Your task to perform on an android device: find which apps use the phone's location Image 0: 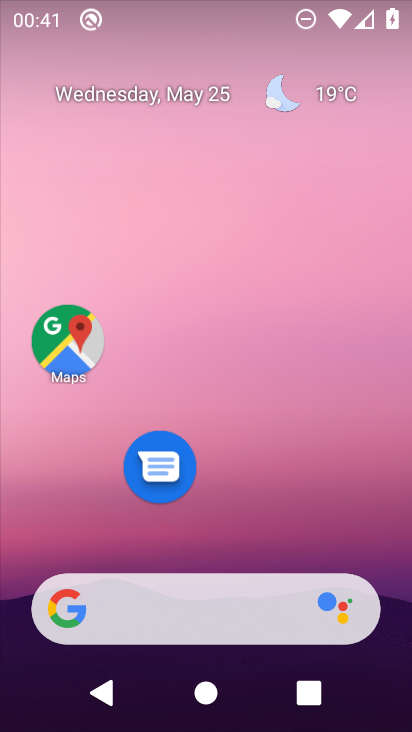
Step 0: drag from (241, 569) to (245, 161)
Your task to perform on an android device: find which apps use the phone's location Image 1: 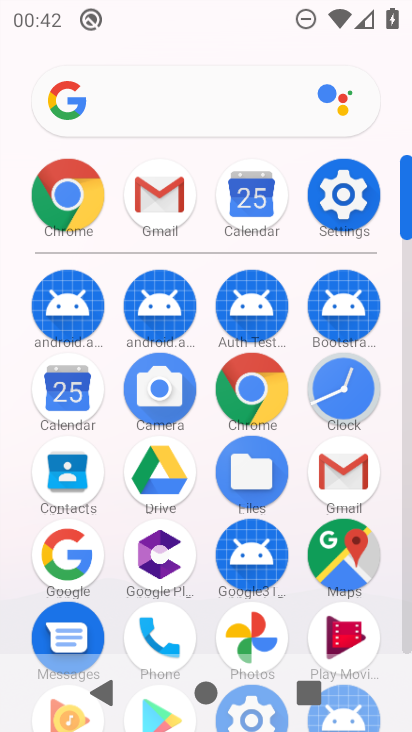
Step 1: click (337, 196)
Your task to perform on an android device: find which apps use the phone's location Image 2: 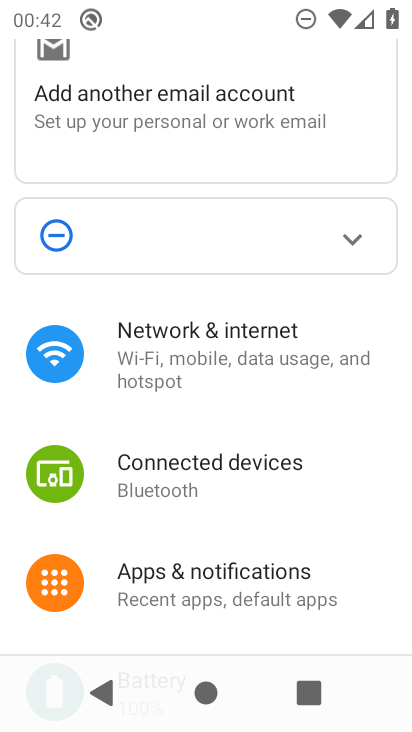
Step 2: drag from (236, 508) to (353, 204)
Your task to perform on an android device: find which apps use the phone's location Image 3: 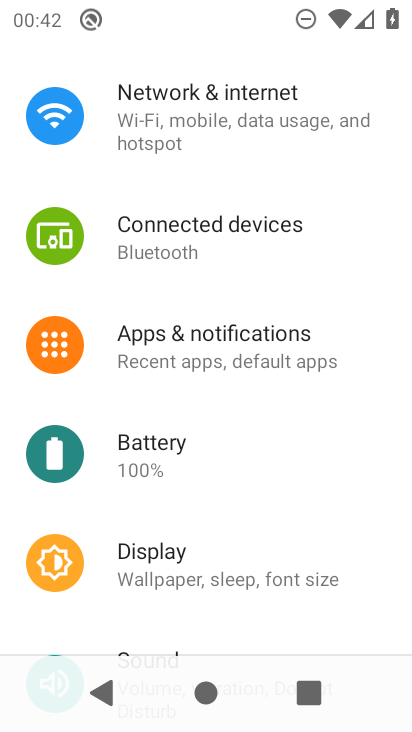
Step 3: drag from (184, 562) to (291, 84)
Your task to perform on an android device: find which apps use the phone's location Image 4: 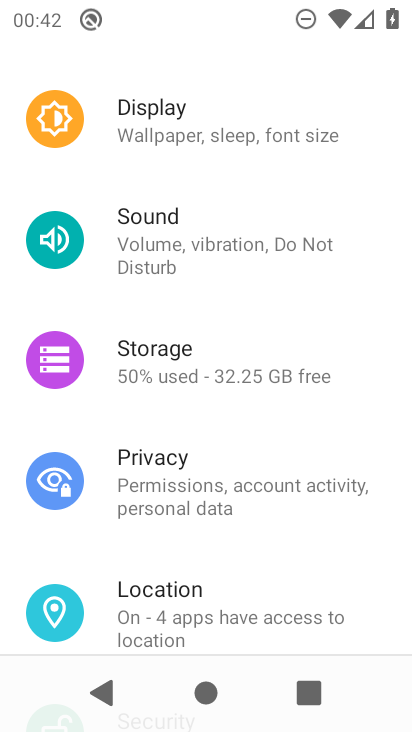
Step 4: click (202, 579)
Your task to perform on an android device: find which apps use the phone's location Image 5: 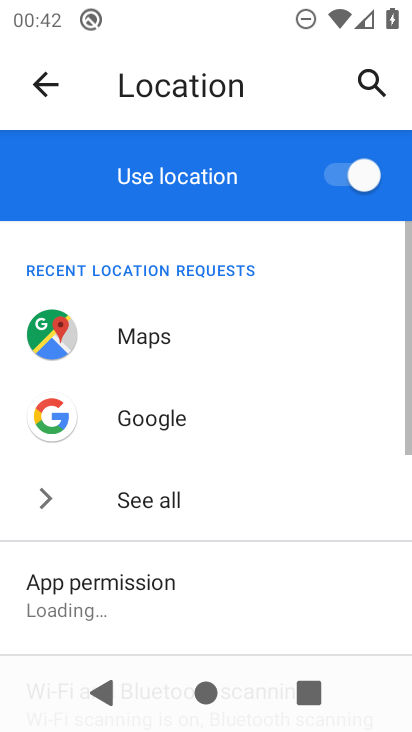
Step 5: drag from (231, 557) to (323, 190)
Your task to perform on an android device: find which apps use the phone's location Image 6: 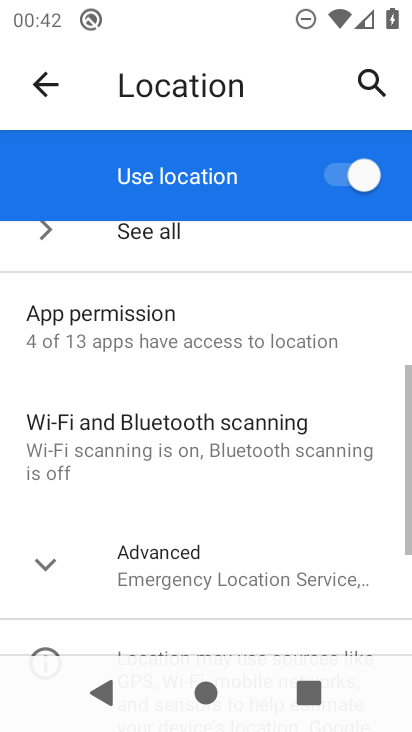
Step 6: drag from (281, 520) to (345, 204)
Your task to perform on an android device: find which apps use the phone's location Image 7: 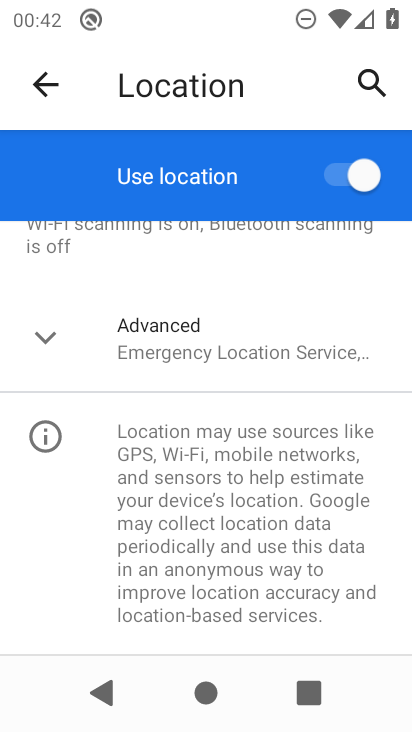
Step 7: click (173, 354)
Your task to perform on an android device: find which apps use the phone's location Image 8: 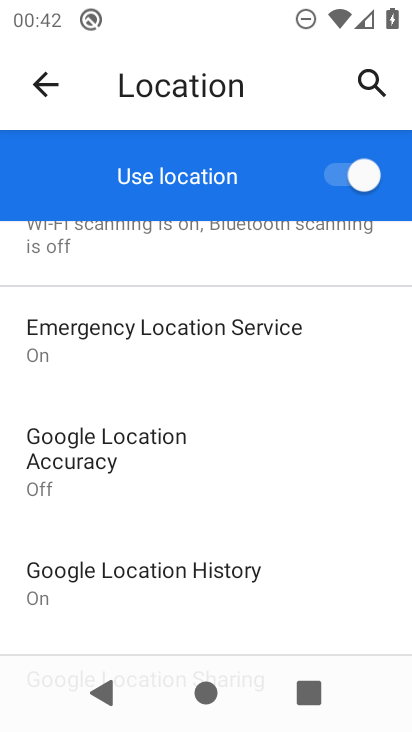
Step 8: drag from (217, 358) to (326, 715)
Your task to perform on an android device: find which apps use the phone's location Image 9: 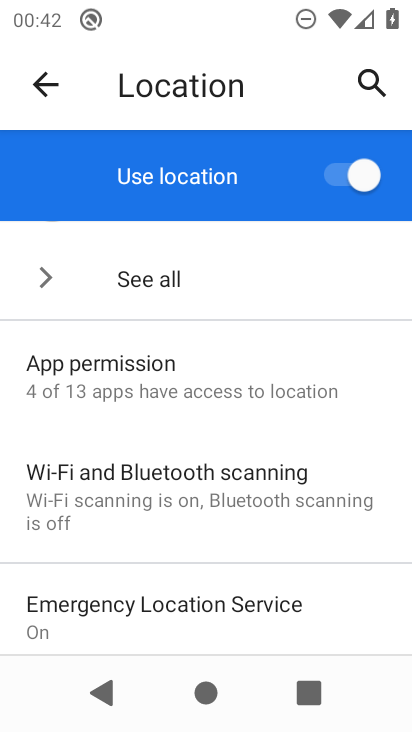
Step 9: click (162, 359)
Your task to perform on an android device: find which apps use the phone's location Image 10: 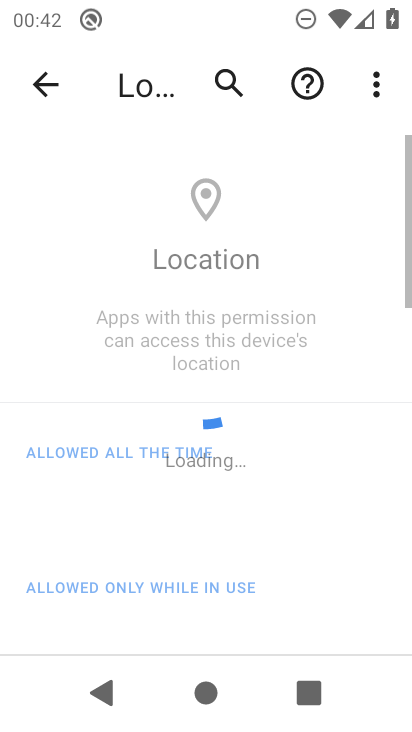
Step 10: task complete